Your task to perform on an android device: turn smart compose on in the gmail app Image 0: 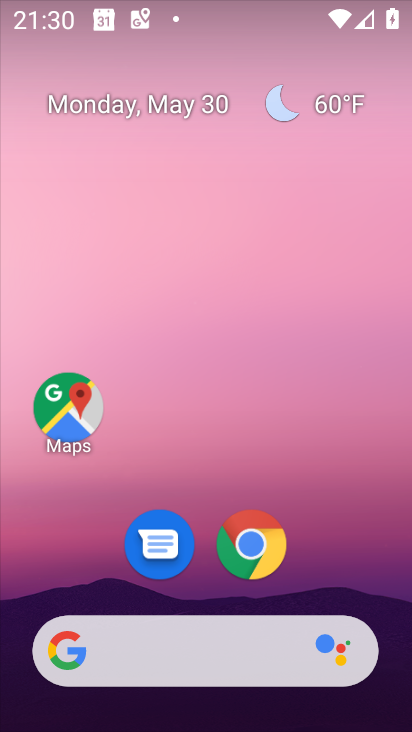
Step 0: drag from (340, 556) to (263, 167)
Your task to perform on an android device: turn smart compose on in the gmail app Image 1: 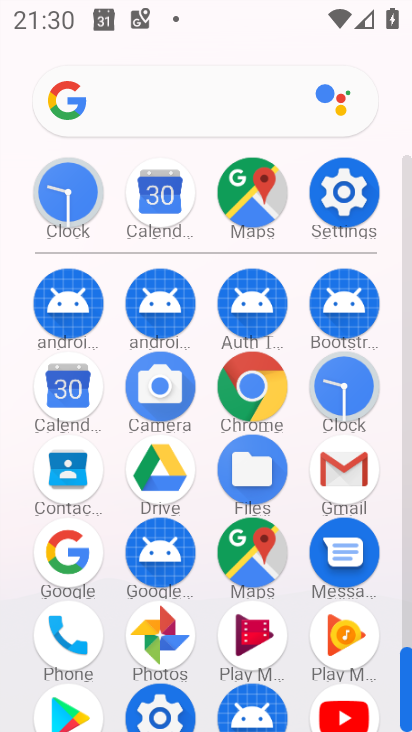
Step 1: click (343, 469)
Your task to perform on an android device: turn smart compose on in the gmail app Image 2: 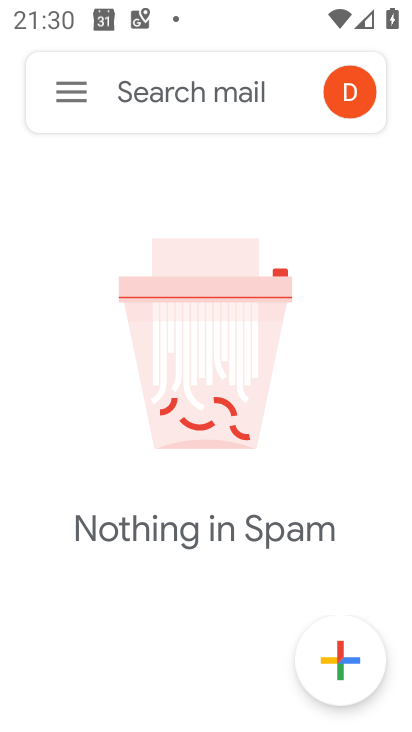
Step 2: click (72, 92)
Your task to perform on an android device: turn smart compose on in the gmail app Image 3: 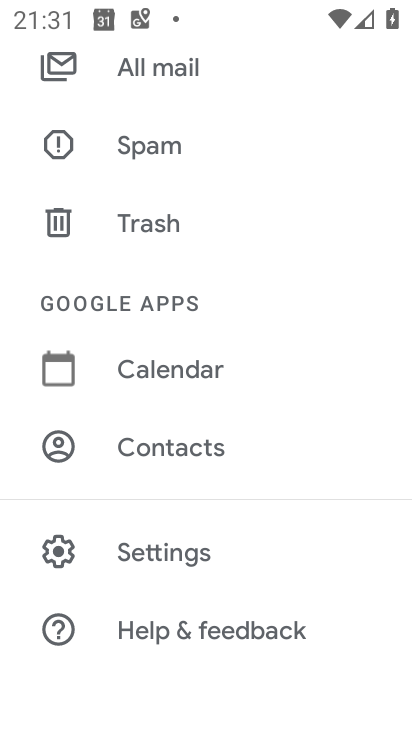
Step 3: click (180, 548)
Your task to perform on an android device: turn smart compose on in the gmail app Image 4: 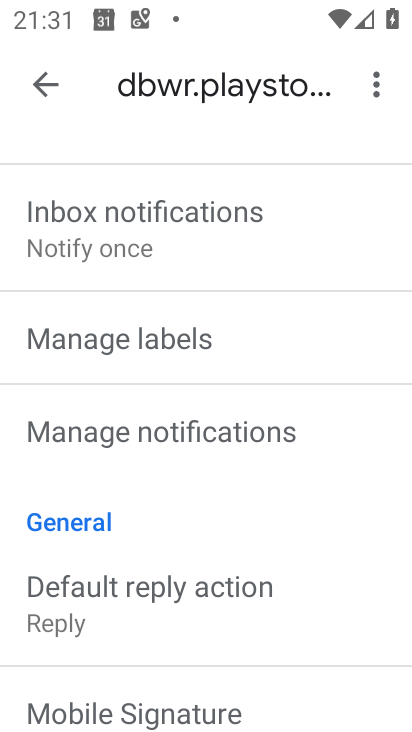
Step 4: task complete